Your task to perform on an android device: Open Chrome and go to settings Image 0: 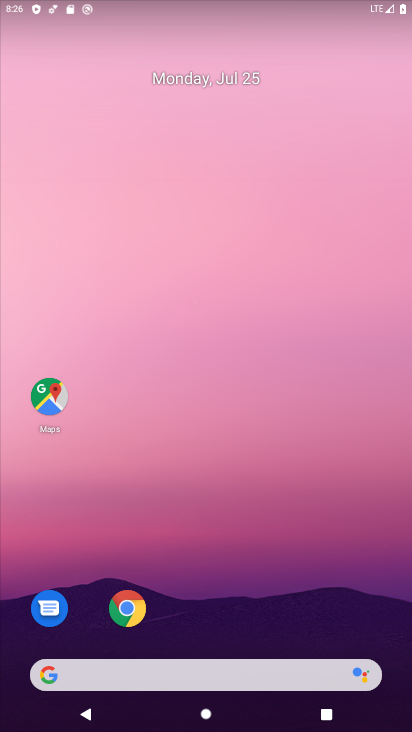
Step 0: click (127, 611)
Your task to perform on an android device: Open Chrome and go to settings Image 1: 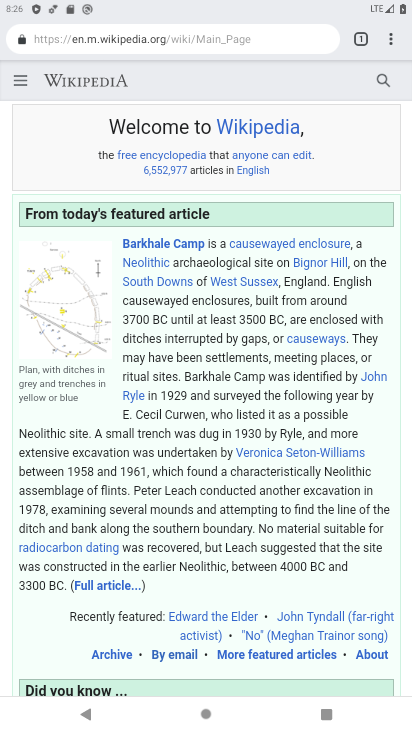
Step 1: click (388, 41)
Your task to perform on an android device: Open Chrome and go to settings Image 2: 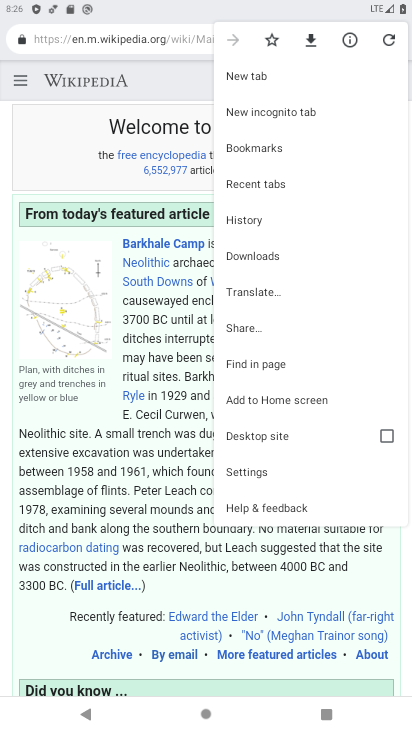
Step 2: click (248, 472)
Your task to perform on an android device: Open Chrome and go to settings Image 3: 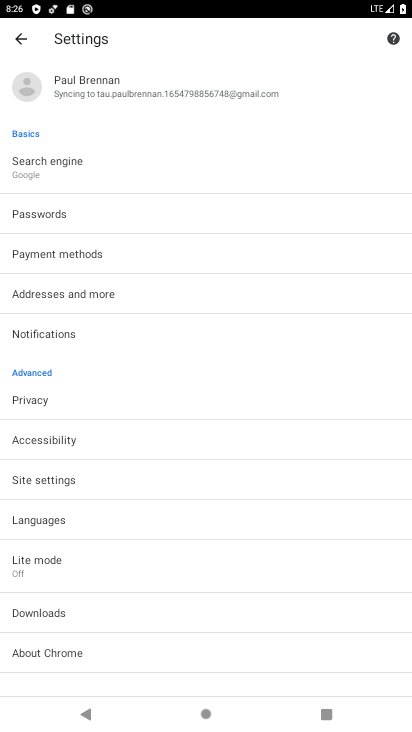
Step 3: task complete